Your task to perform on an android device: open app "Life360: Find Family & Friends" (install if not already installed) Image 0: 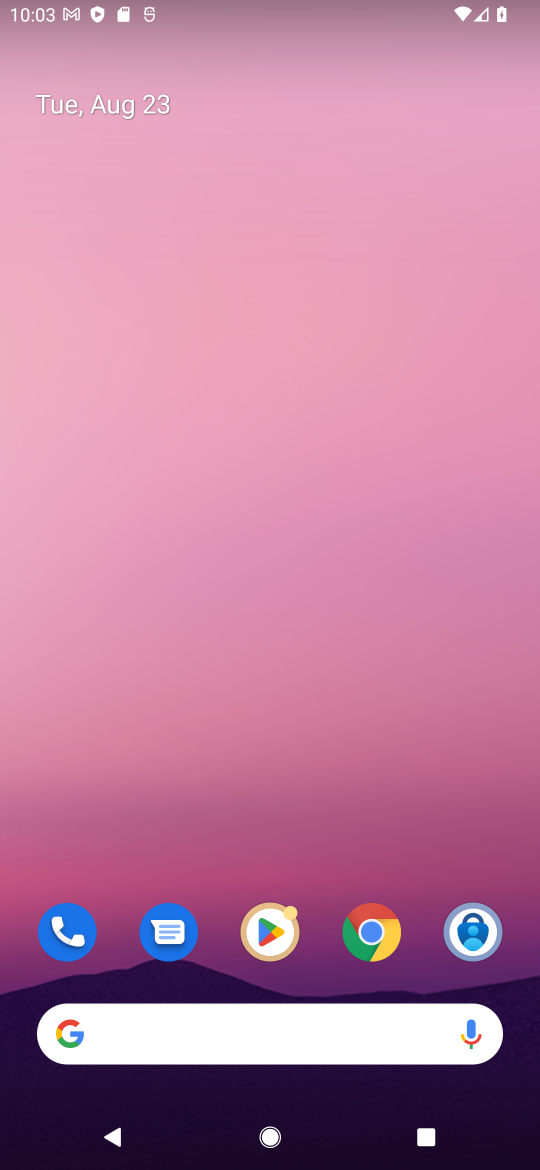
Step 0: click (283, 931)
Your task to perform on an android device: open app "Life360: Find Family & Friends" (install if not already installed) Image 1: 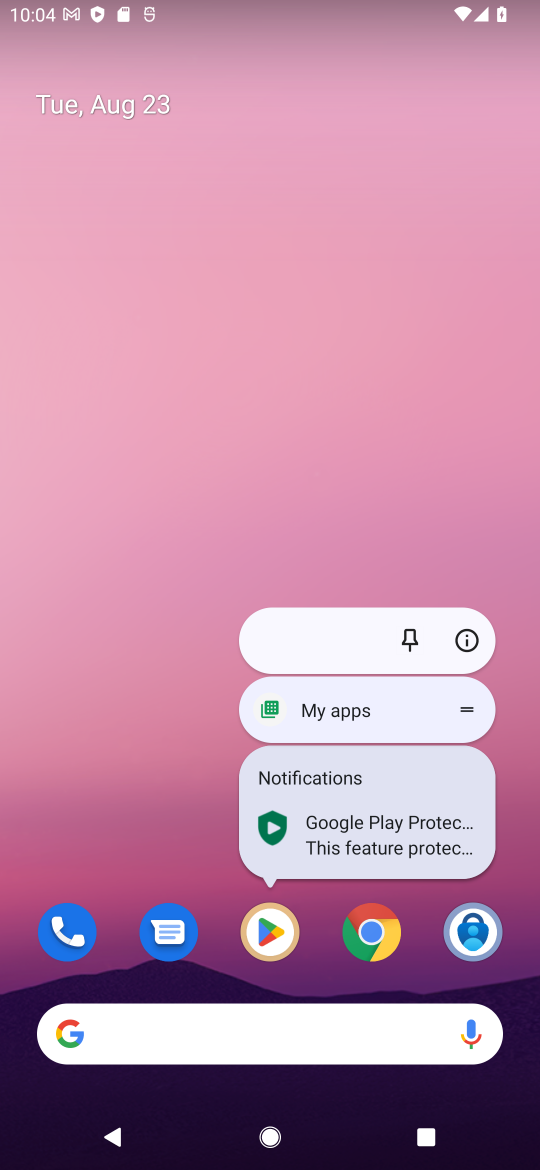
Step 1: click (289, 941)
Your task to perform on an android device: open app "Life360: Find Family & Friends" (install if not already installed) Image 2: 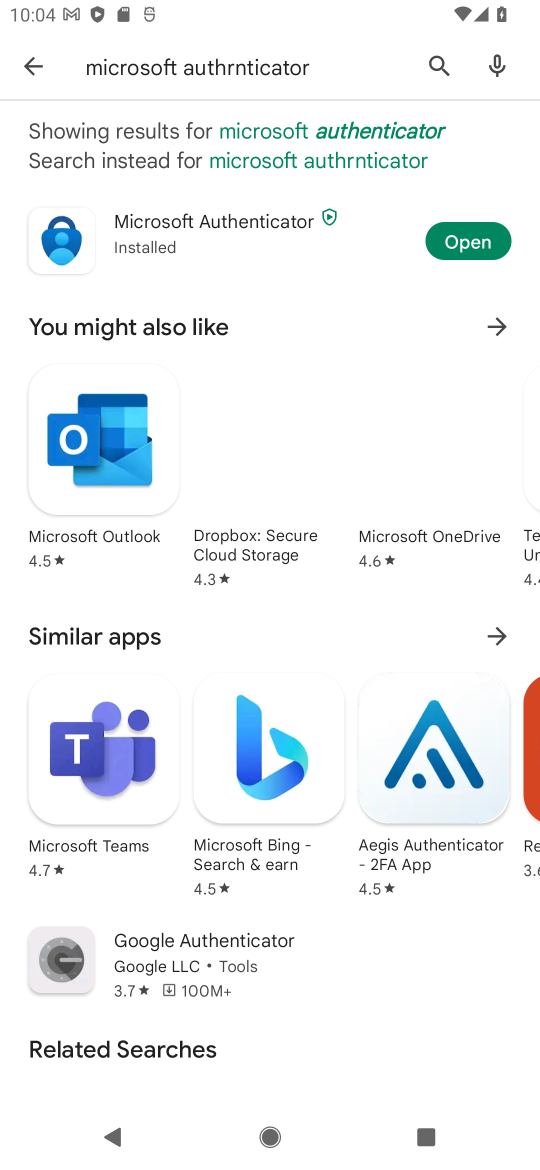
Step 2: click (449, 49)
Your task to perform on an android device: open app "Life360: Find Family & Friends" (install if not already installed) Image 3: 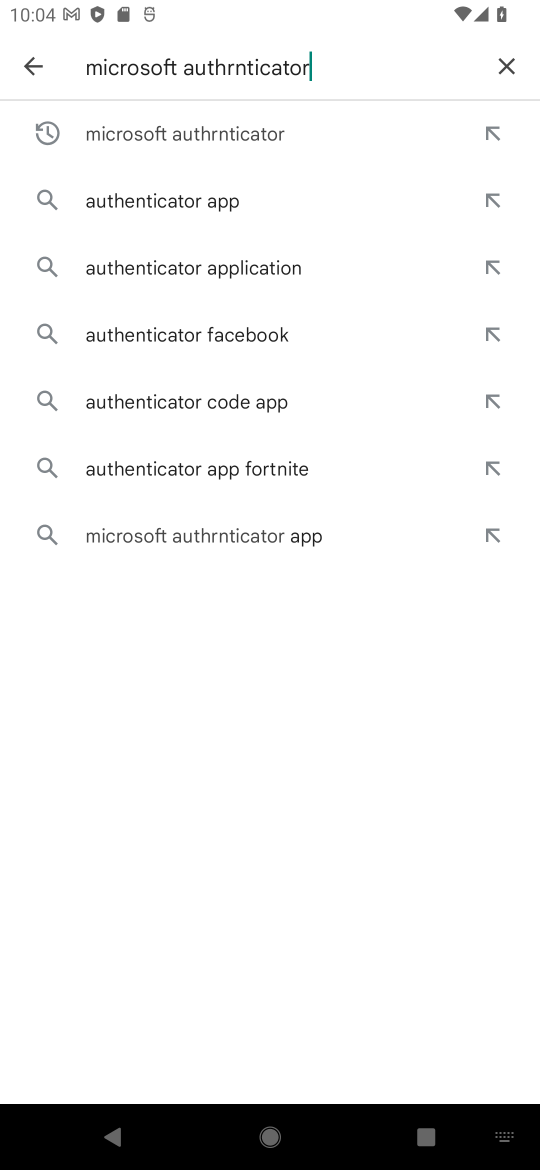
Step 3: click (507, 62)
Your task to perform on an android device: open app "Life360: Find Family & Friends" (install if not already installed) Image 4: 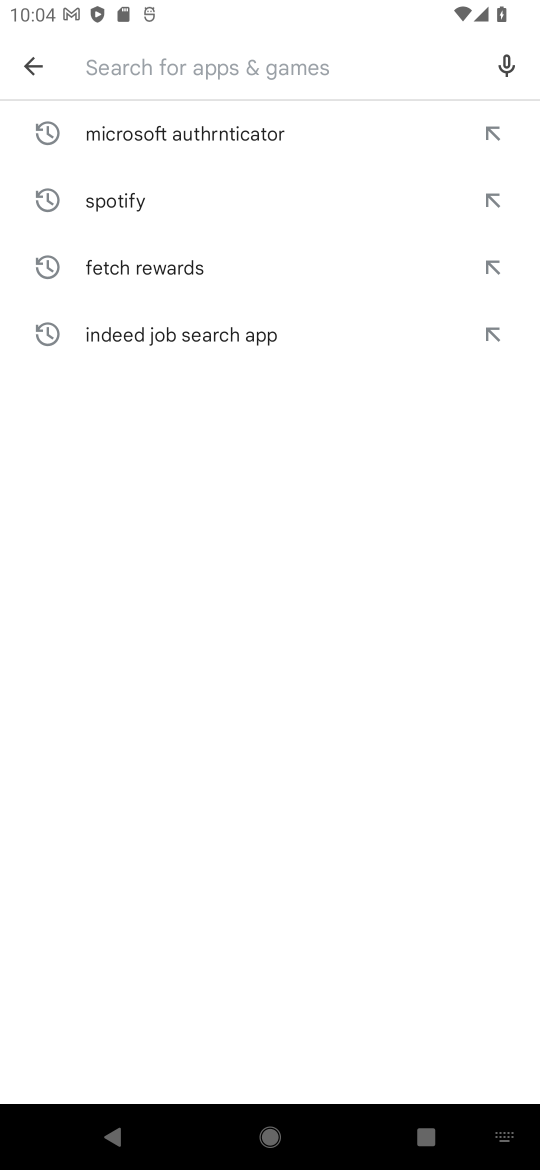
Step 4: type ""
Your task to perform on an android device: open app "Life360: Find Family & Friends" (install if not already installed) Image 5: 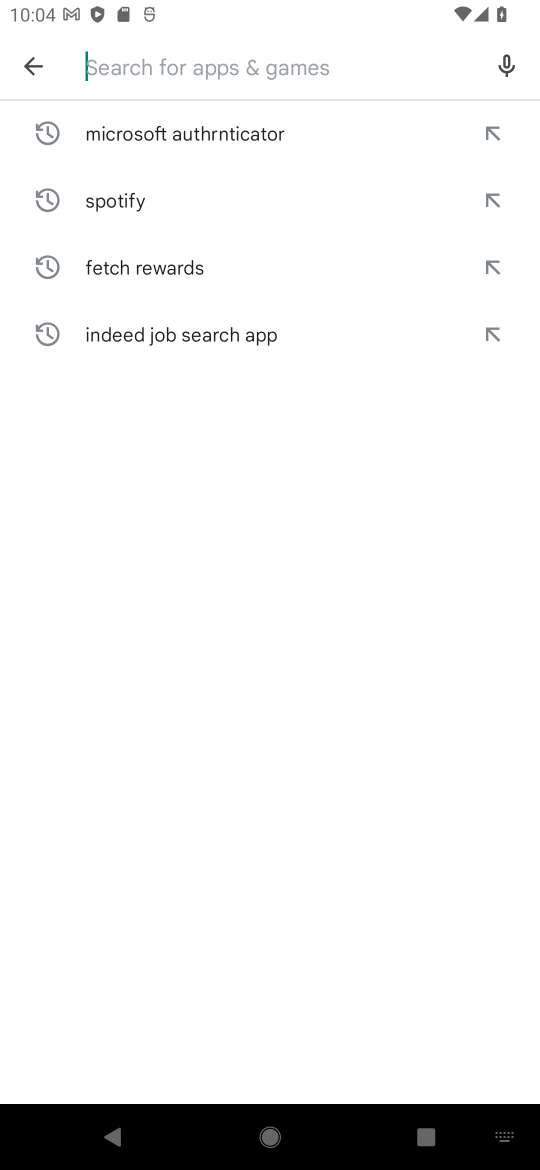
Step 5: type "life360"
Your task to perform on an android device: open app "Life360: Find Family & Friends" (install if not already installed) Image 6: 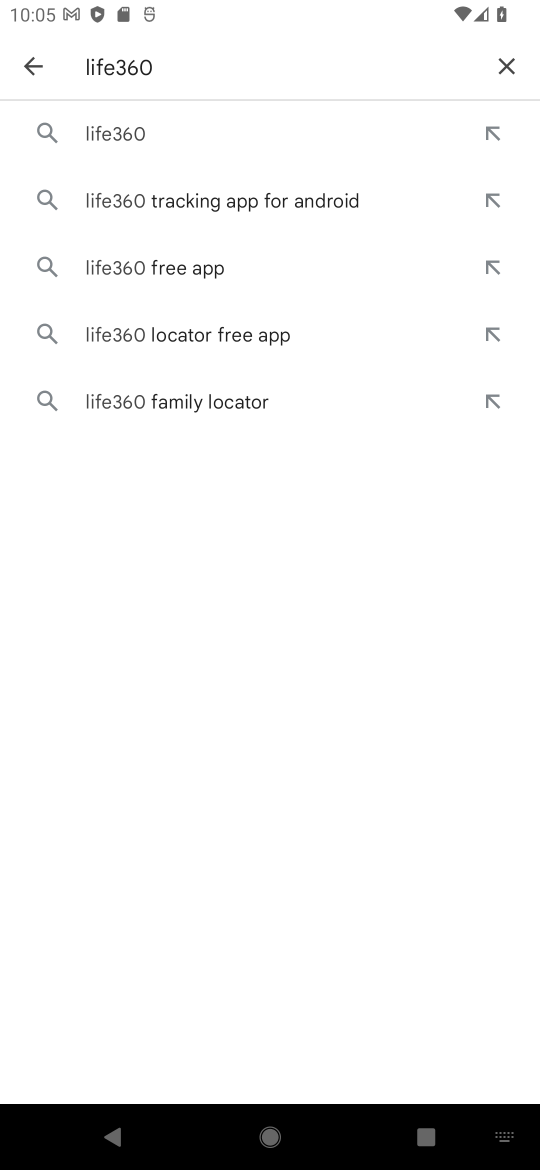
Step 6: click (152, 110)
Your task to perform on an android device: open app "Life360: Find Family & Friends" (install if not already installed) Image 7: 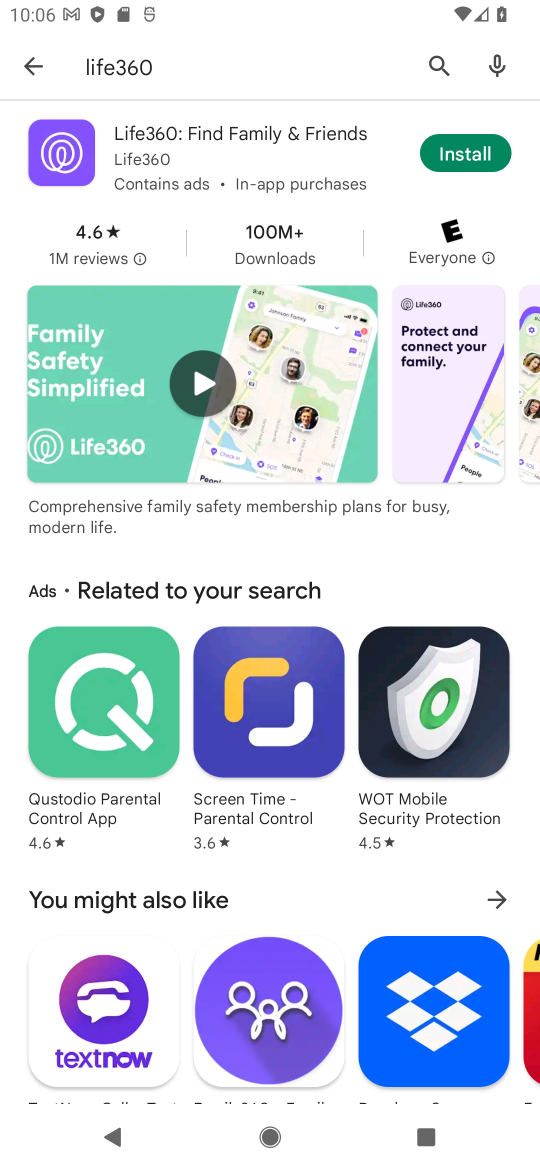
Step 7: click (457, 163)
Your task to perform on an android device: open app "Life360: Find Family & Friends" (install if not already installed) Image 8: 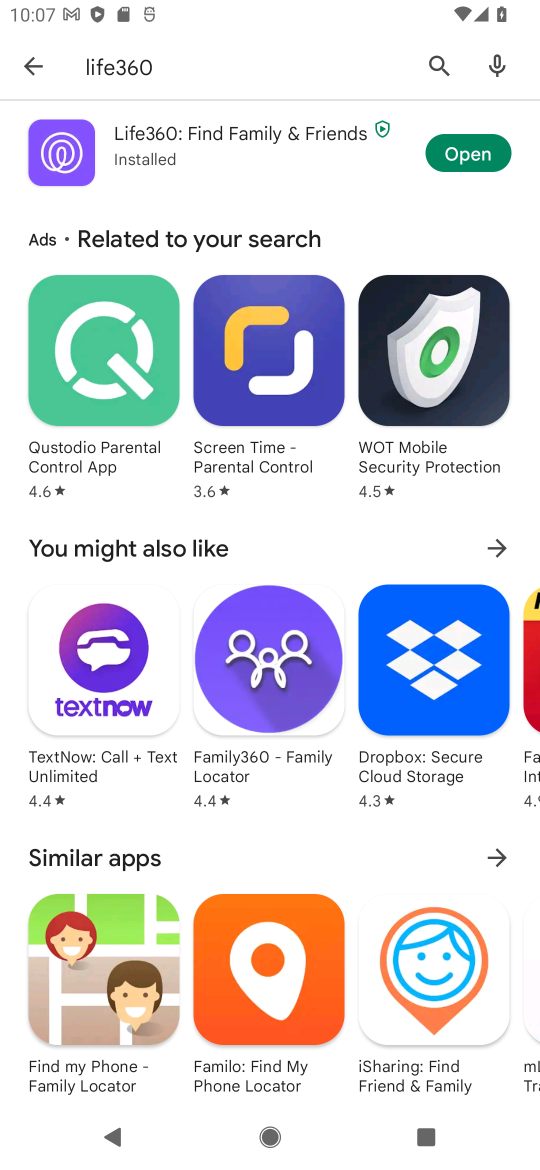
Step 8: click (490, 156)
Your task to perform on an android device: open app "Life360: Find Family & Friends" (install if not already installed) Image 9: 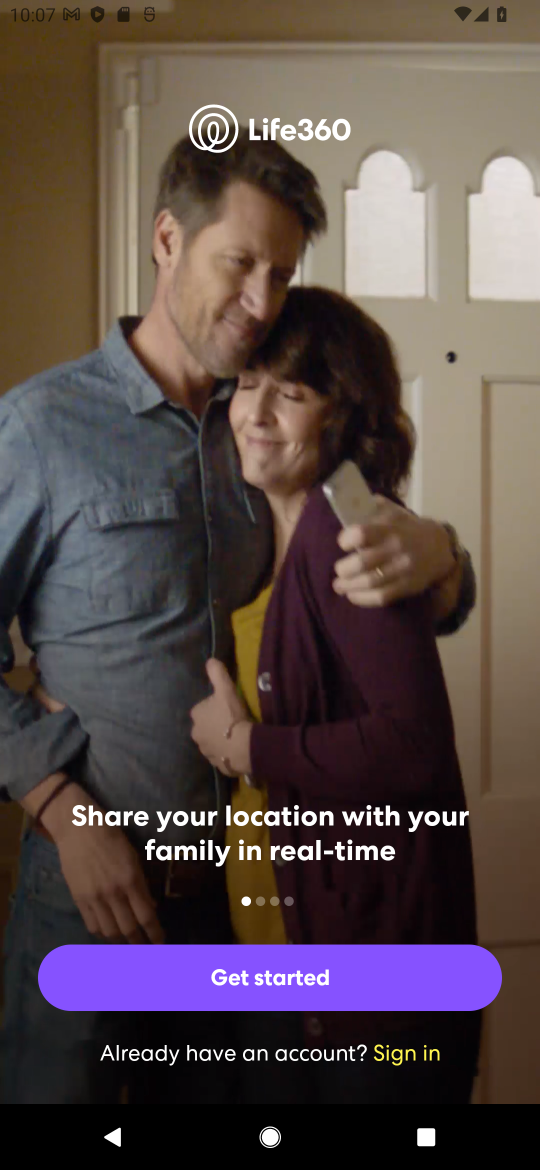
Step 9: task complete